Your task to perform on an android device: uninstall "Firefox Browser" Image 0: 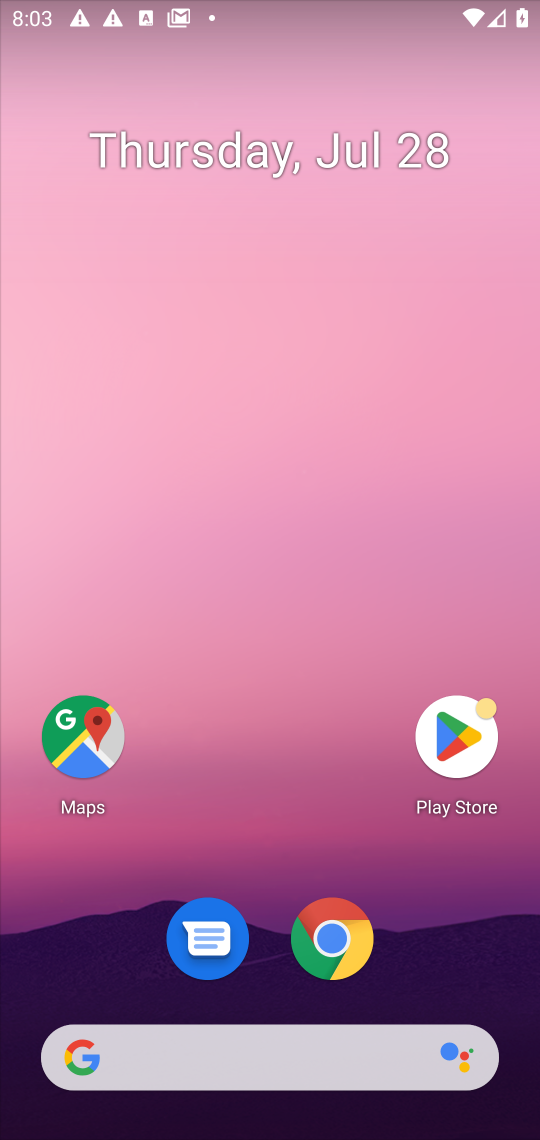
Step 0: click (446, 735)
Your task to perform on an android device: uninstall "Firefox Browser" Image 1: 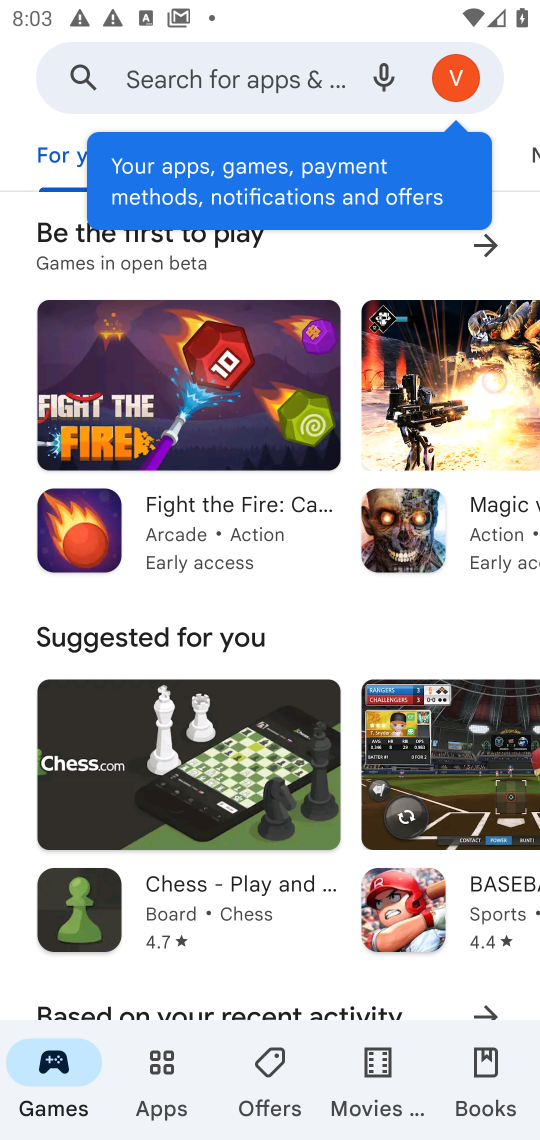
Step 1: click (198, 77)
Your task to perform on an android device: uninstall "Firefox Browser" Image 2: 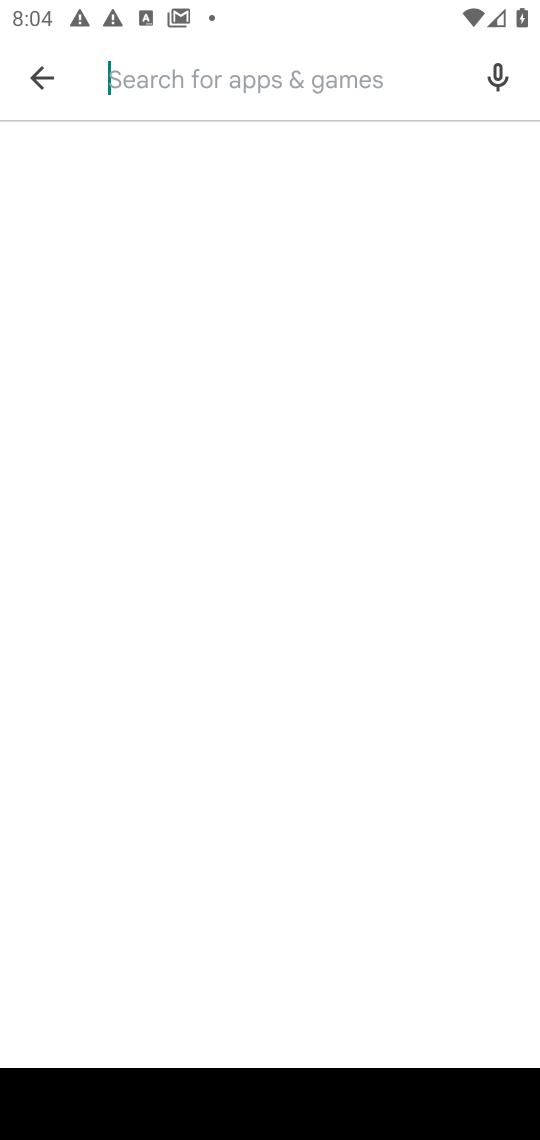
Step 2: click (237, 79)
Your task to perform on an android device: uninstall "Firefox Browser" Image 3: 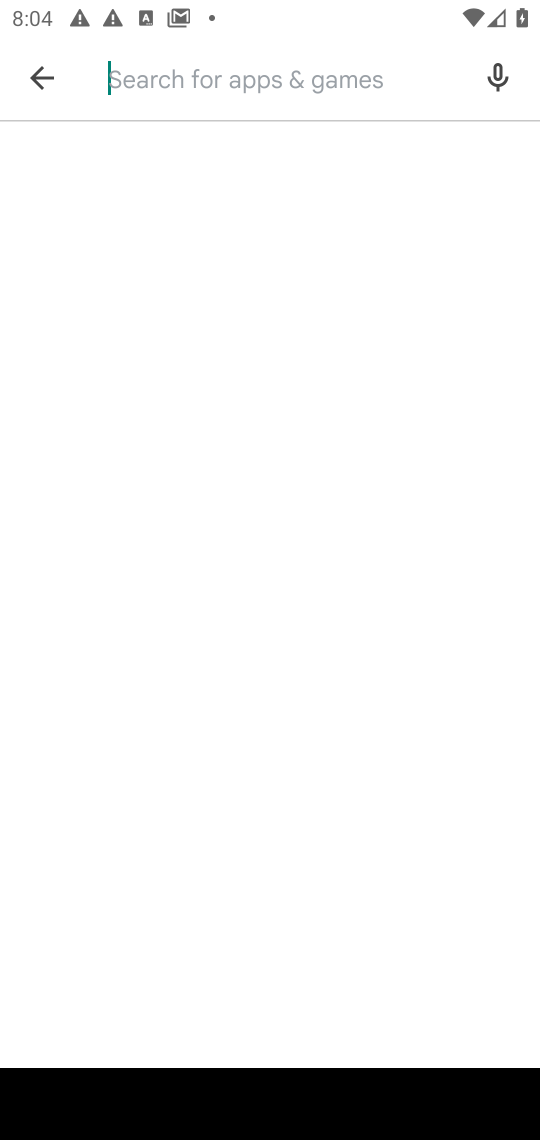
Step 3: type "Firefox Browser"
Your task to perform on an android device: uninstall "Firefox Browser" Image 4: 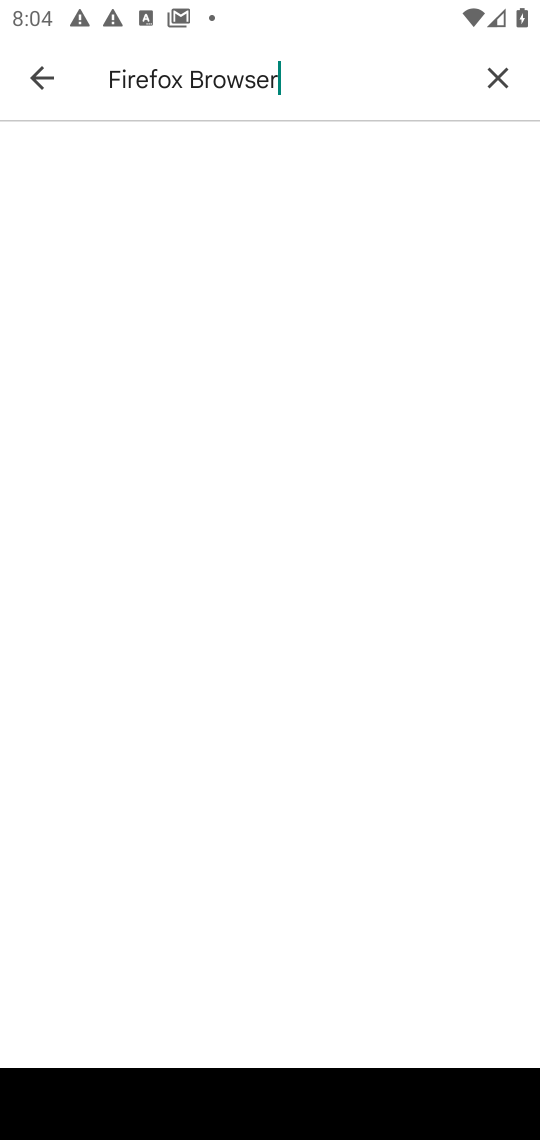
Step 4: type ""
Your task to perform on an android device: uninstall "Firefox Browser" Image 5: 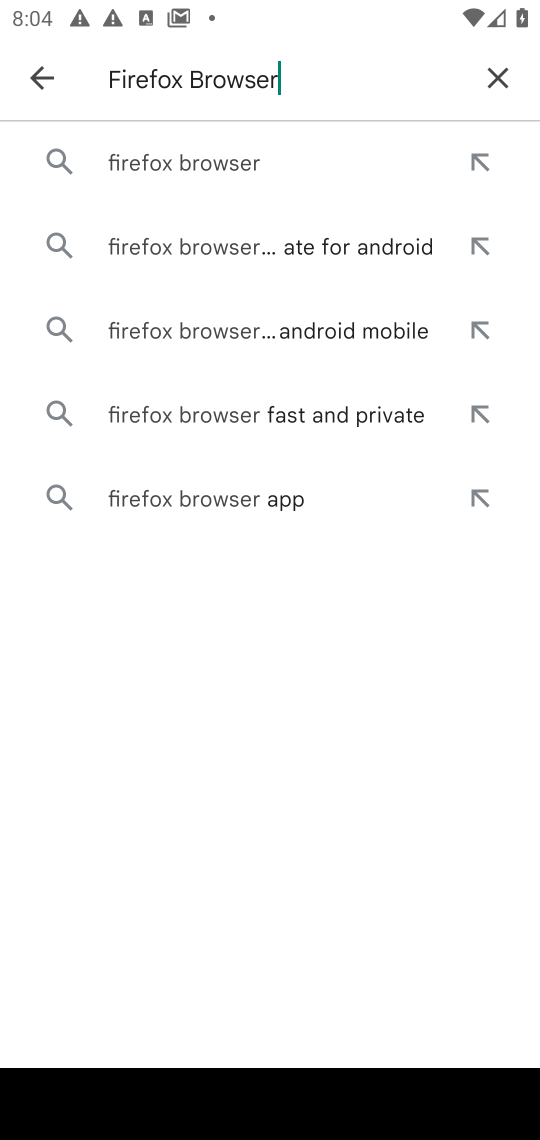
Step 5: click (295, 178)
Your task to perform on an android device: uninstall "Firefox Browser" Image 6: 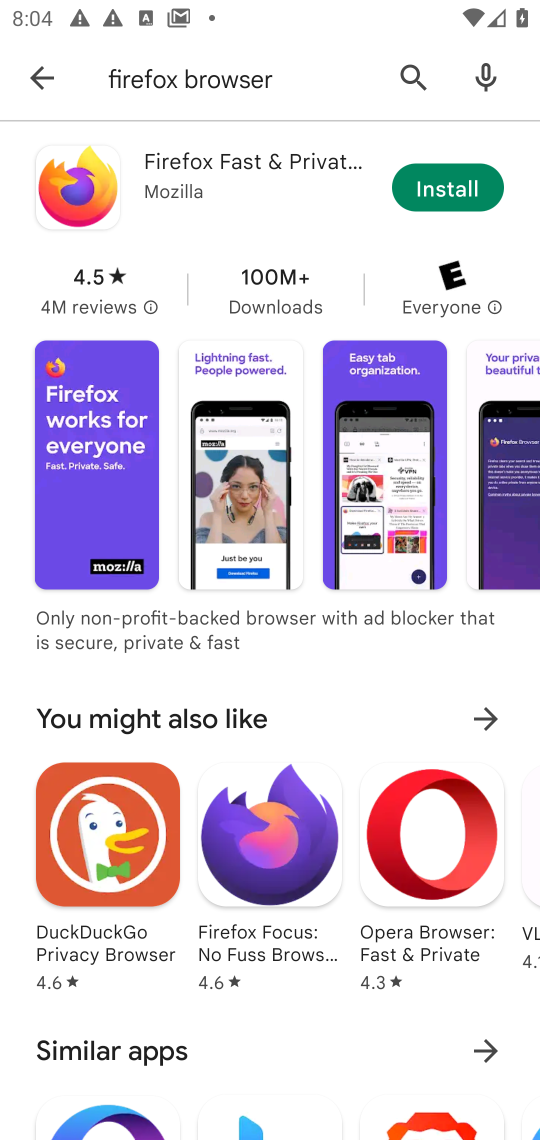
Step 6: click (249, 198)
Your task to perform on an android device: uninstall "Firefox Browser" Image 7: 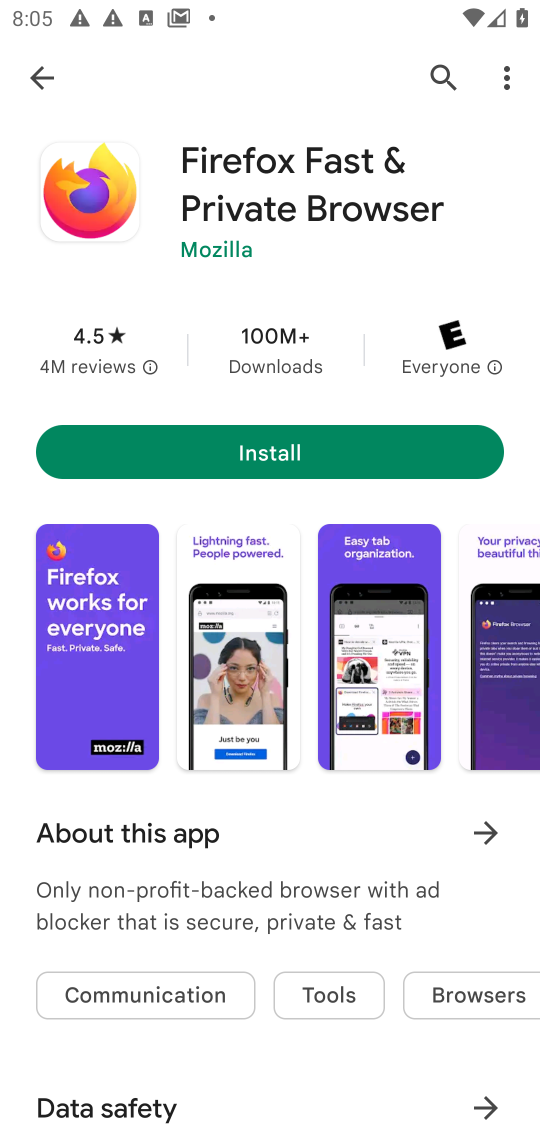
Step 7: task complete